Your task to perform on an android device: all mails in gmail Image 0: 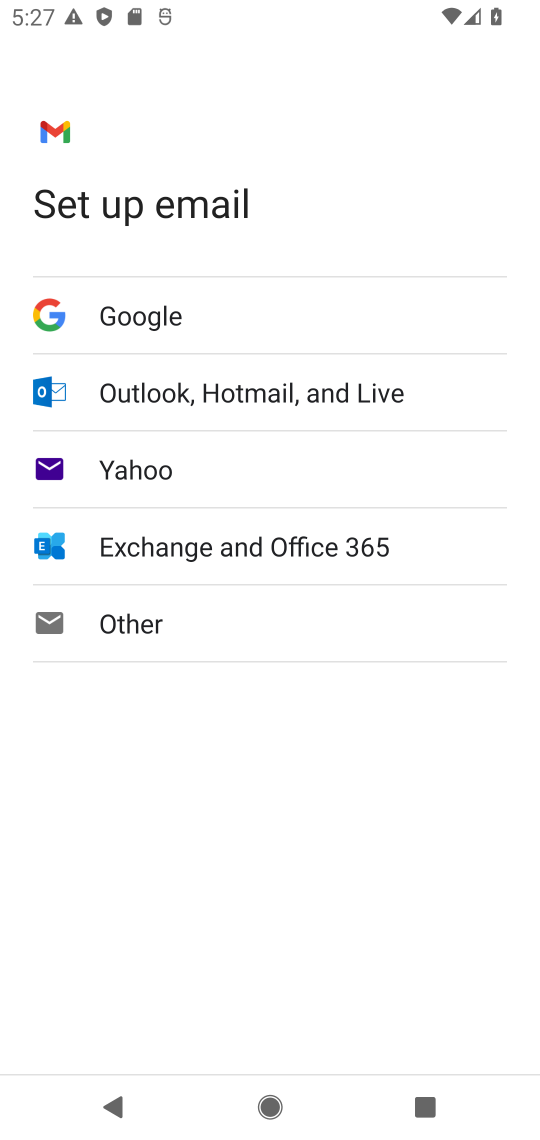
Step 0: press enter
Your task to perform on an android device: all mails in gmail Image 1: 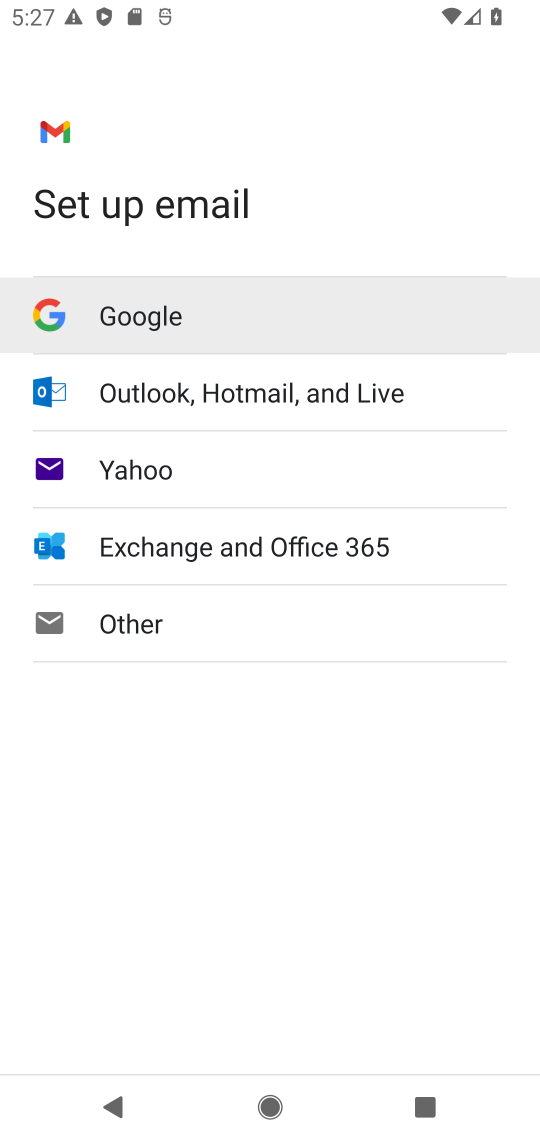
Step 1: press home button
Your task to perform on an android device: all mails in gmail Image 2: 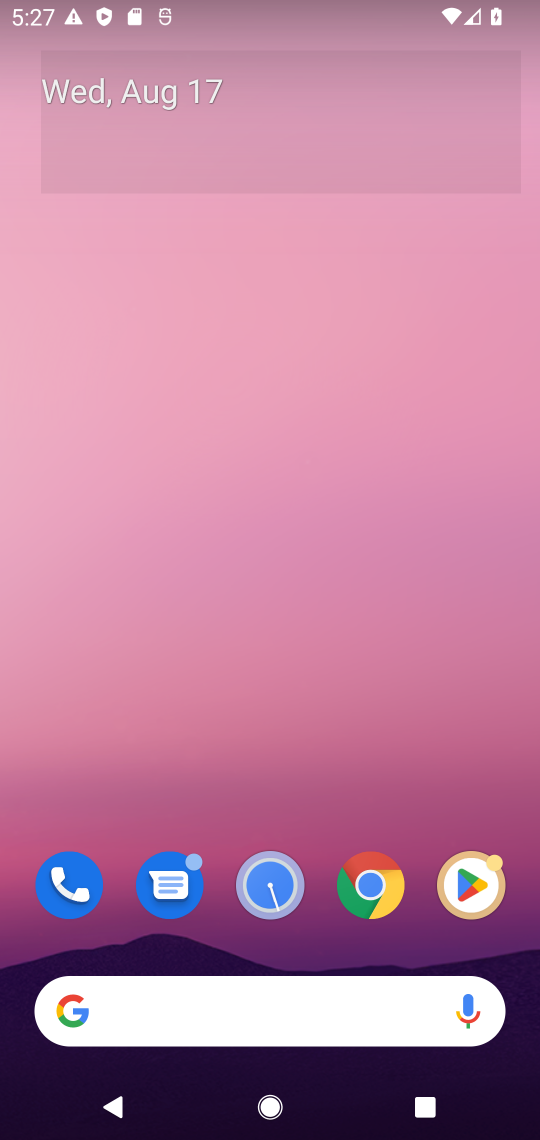
Step 2: drag from (319, 816) to (375, 190)
Your task to perform on an android device: all mails in gmail Image 3: 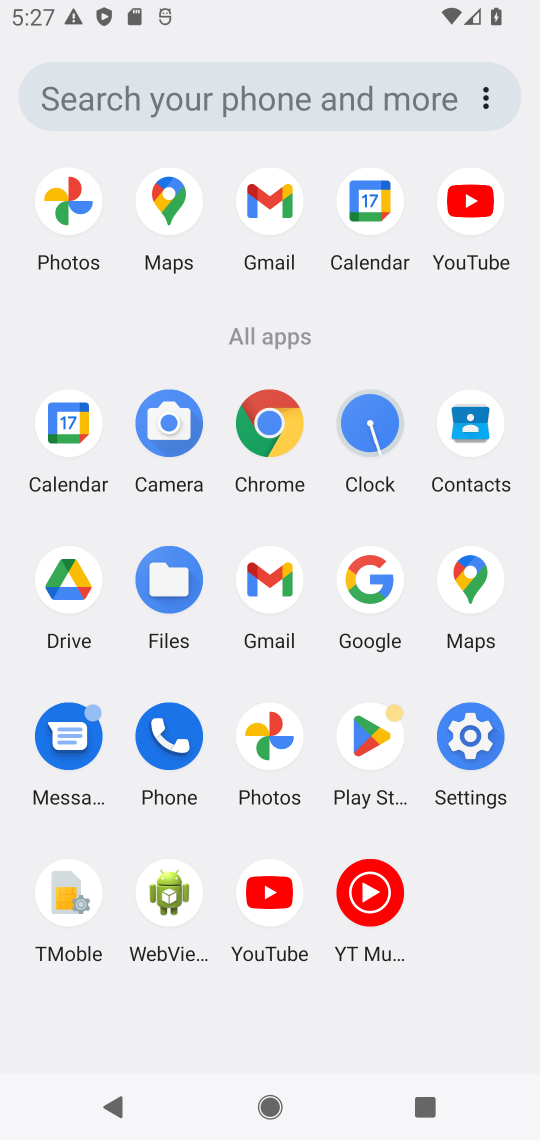
Step 3: click (263, 587)
Your task to perform on an android device: all mails in gmail Image 4: 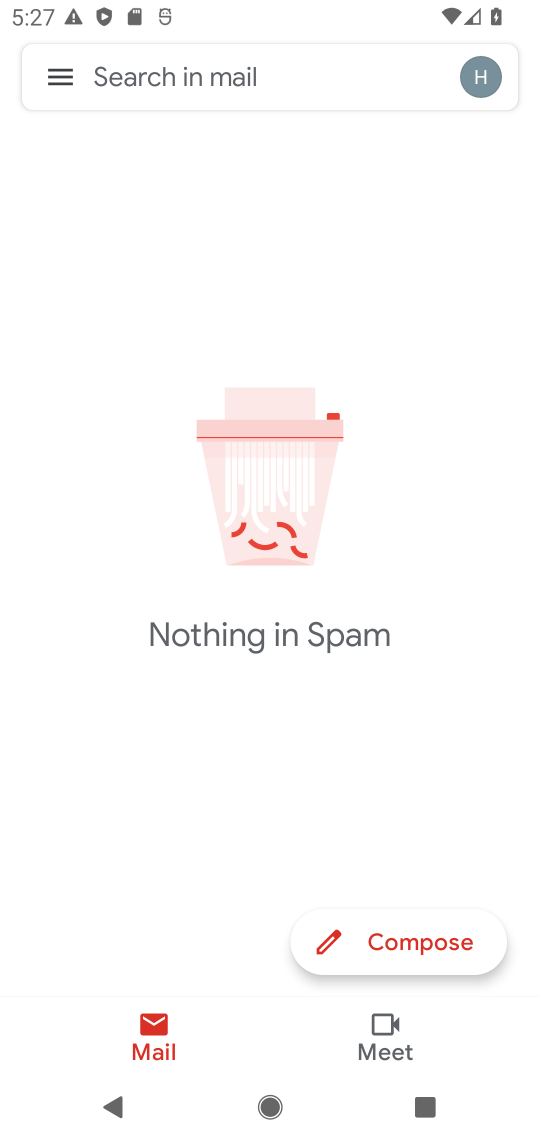
Step 4: click (58, 87)
Your task to perform on an android device: all mails in gmail Image 5: 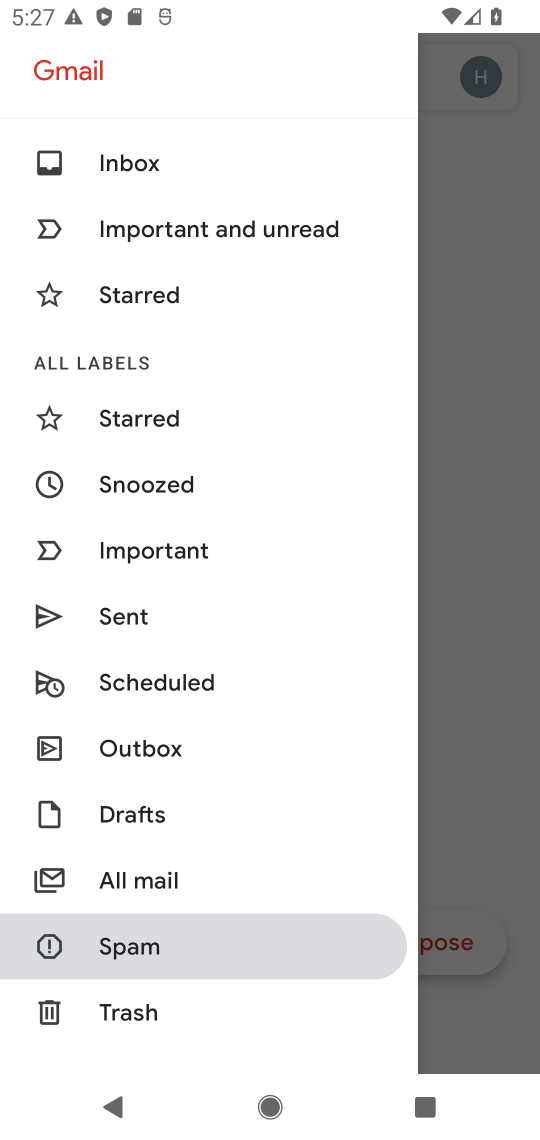
Step 5: click (90, 863)
Your task to perform on an android device: all mails in gmail Image 6: 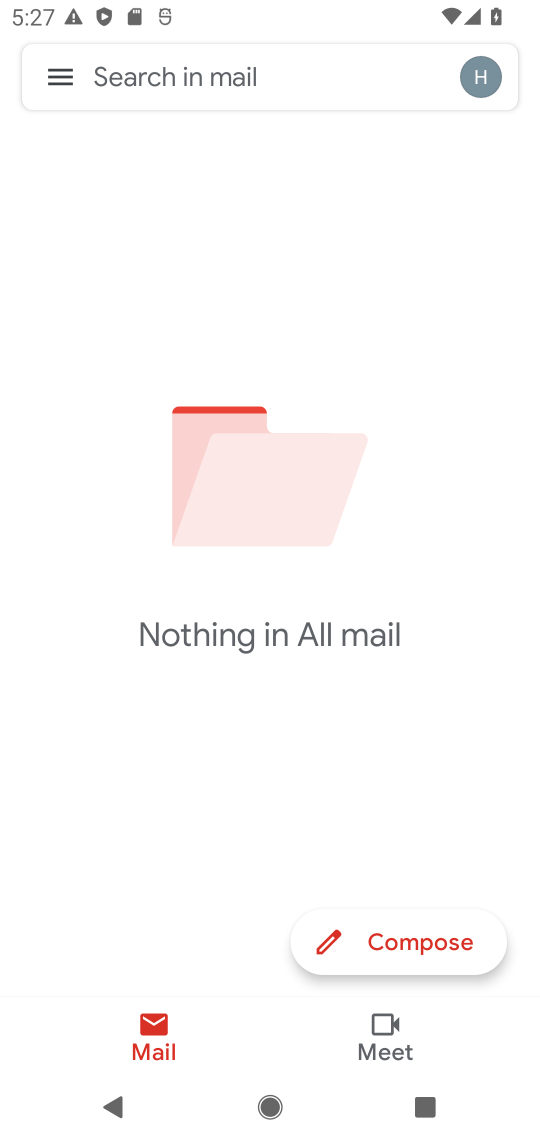
Step 6: task complete